Your task to perform on an android device: Search for "usb-b" on amazon.com, select the first entry, and add it to the cart. Image 0: 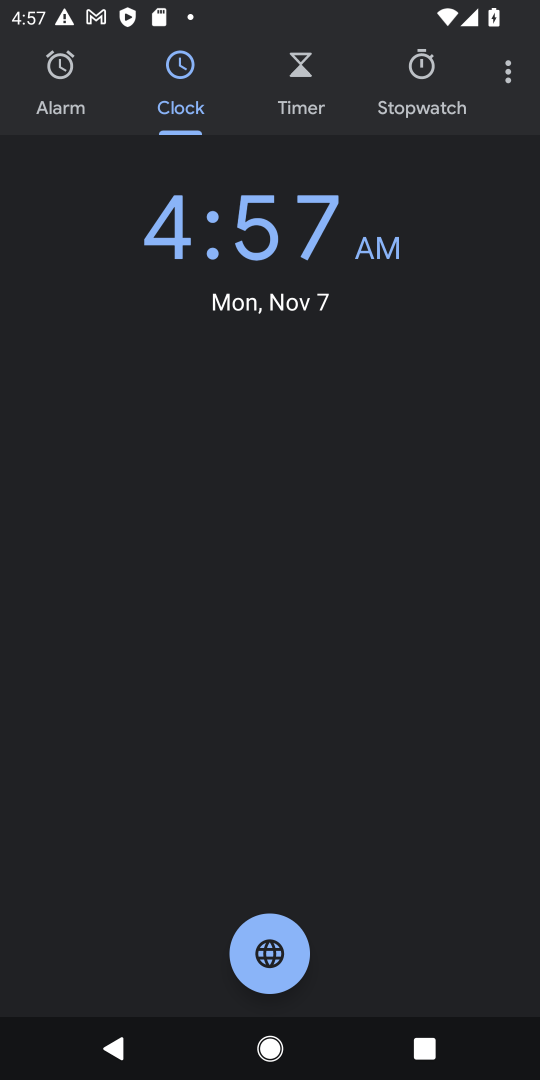
Step 0: press home button
Your task to perform on an android device: Search for "usb-b" on amazon.com, select the first entry, and add it to the cart. Image 1: 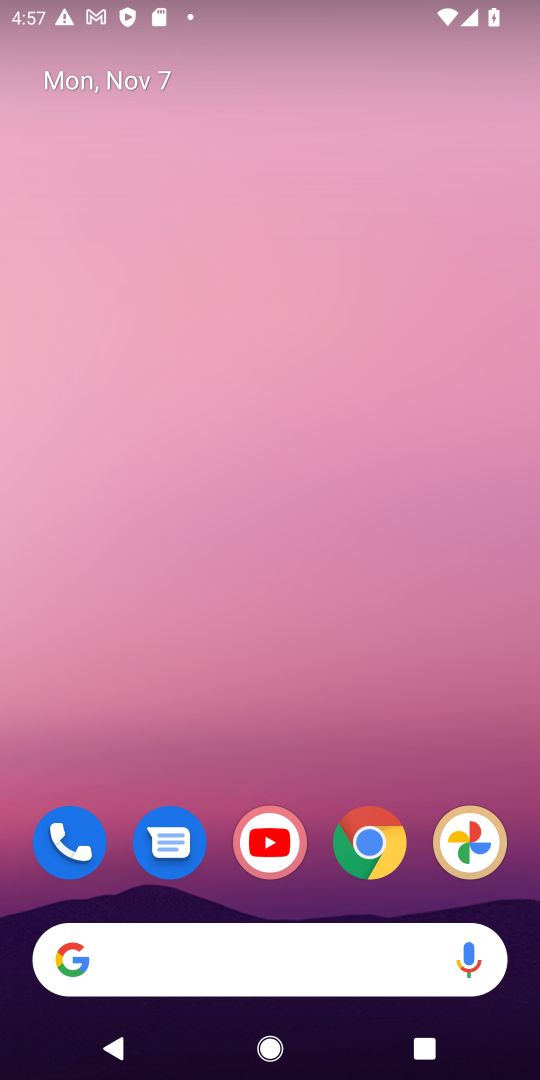
Step 1: drag from (230, 660) to (348, 0)
Your task to perform on an android device: Search for "usb-b" on amazon.com, select the first entry, and add it to the cart. Image 2: 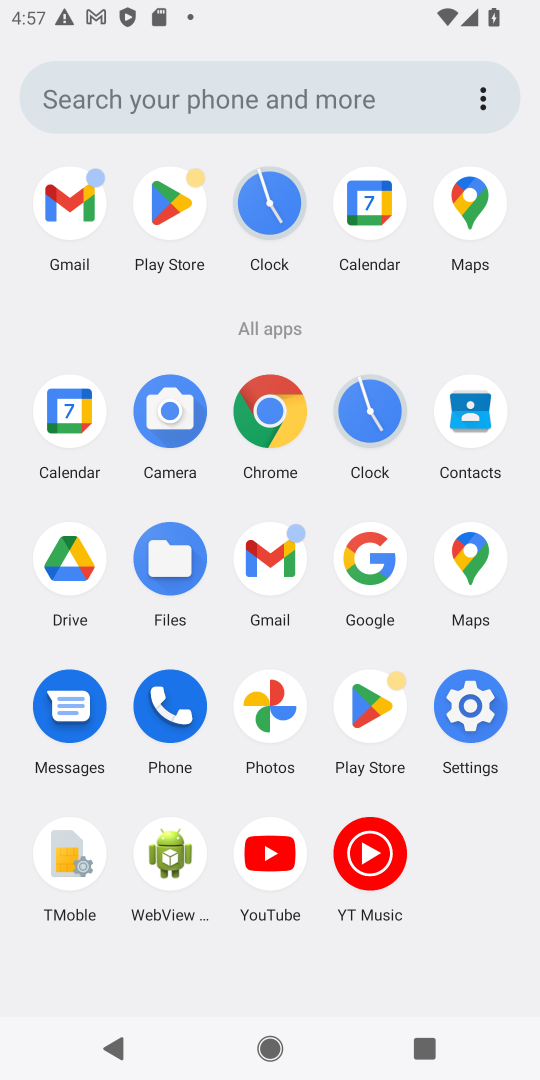
Step 2: drag from (301, 517) to (429, 394)
Your task to perform on an android device: Search for "usb-b" on amazon.com, select the first entry, and add it to the cart. Image 3: 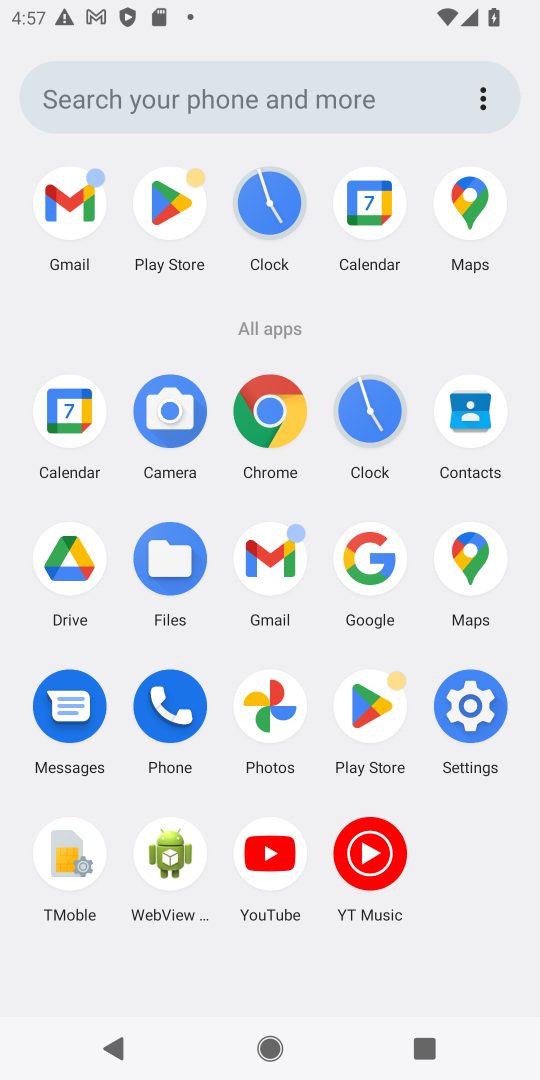
Step 3: click (252, 443)
Your task to perform on an android device: Search for "usb-b" on amazon.com, select the first entry, and add it to the cart. Image 4: 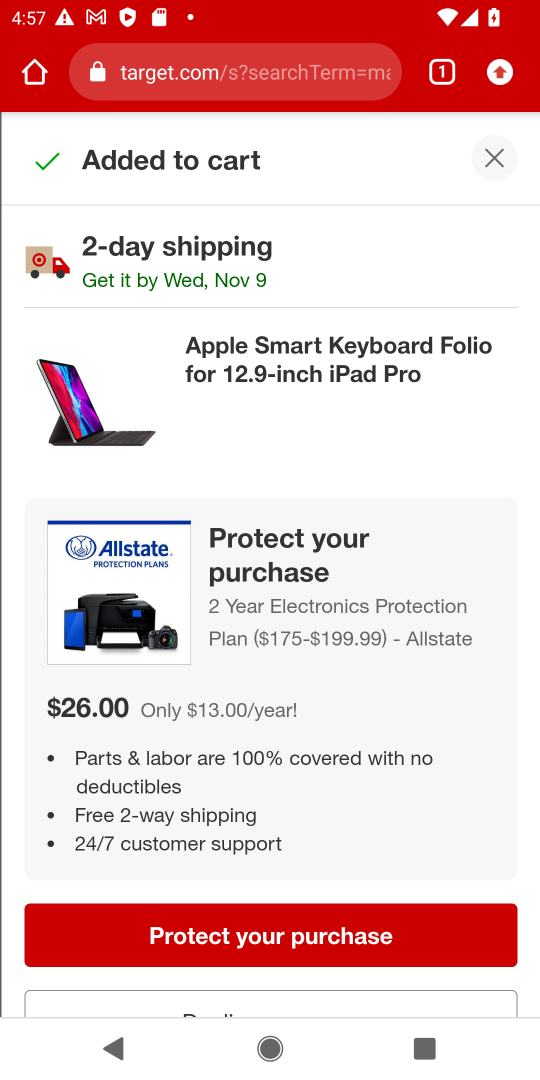
Step 4: click (322, 68)
Your task to perform on an android device: Search for "usb-b" on amazon.com, select the first entry, and add it to the cart. Image 5: 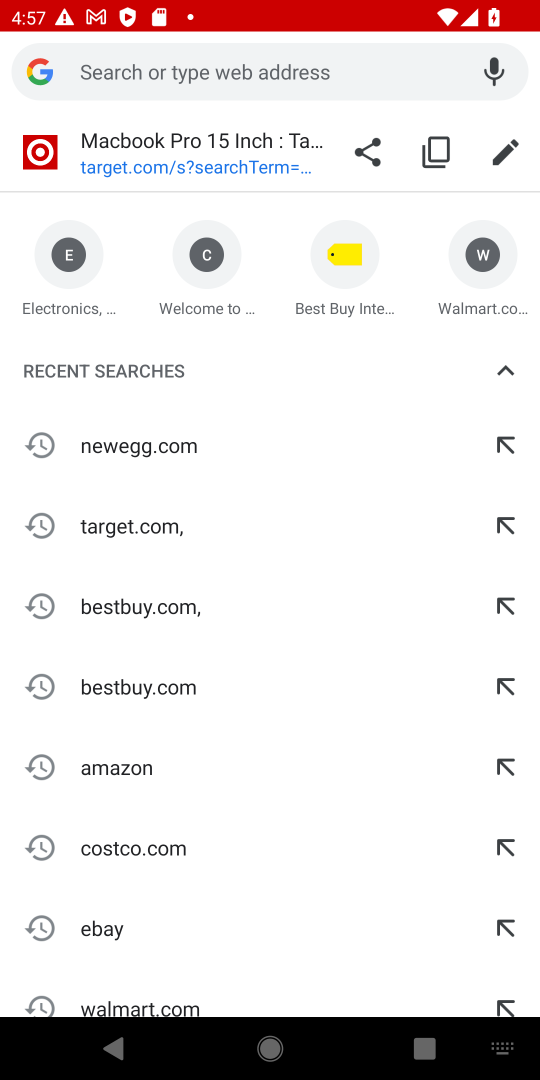
Step 5: type "amazon.com"
Your task to perform on an android device: Search for "usb-b" on amazon.com, select the first entry, and add it to the cart. Image 6: 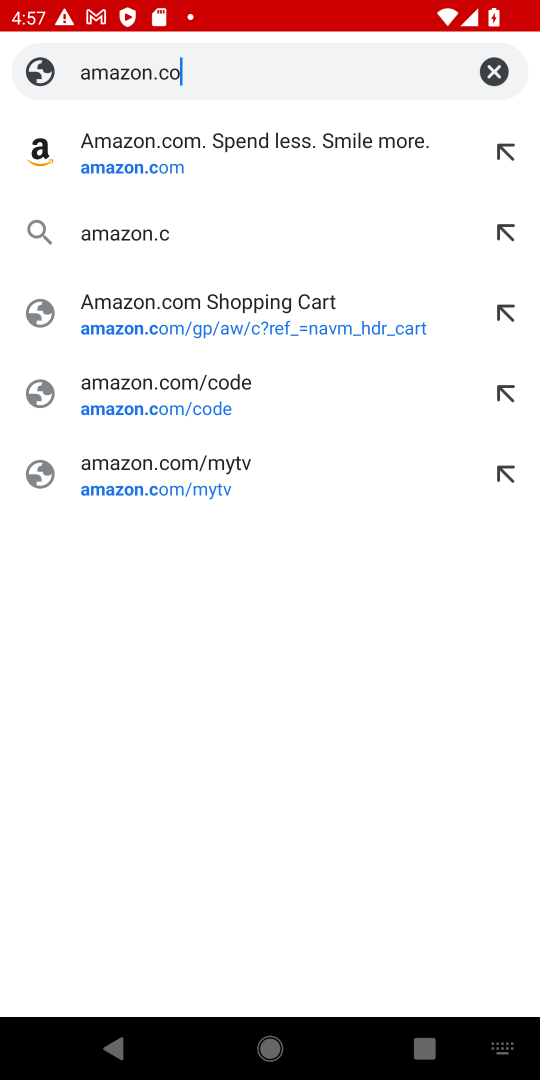
Step 6: press enter
Your task to perform on an android device: Search for "usb-b" on amazon.com, select the first entry, and add it to the cart. Image 7: 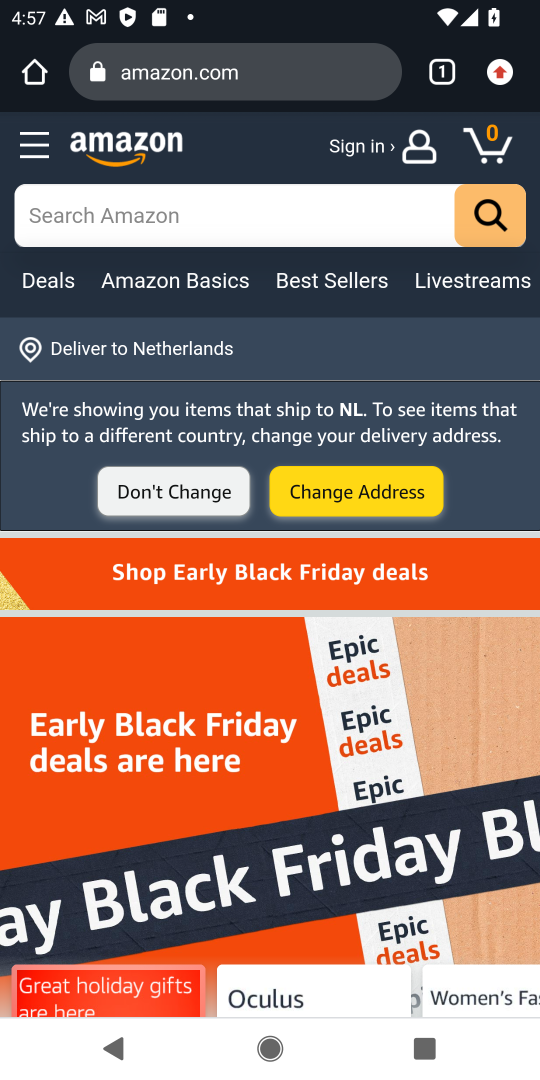
Step 7: click (249, 218)
Your task to perform on an android device: Search for "usb-b" on amazon.com, select the first entry, and add it to the cart. Image 8: 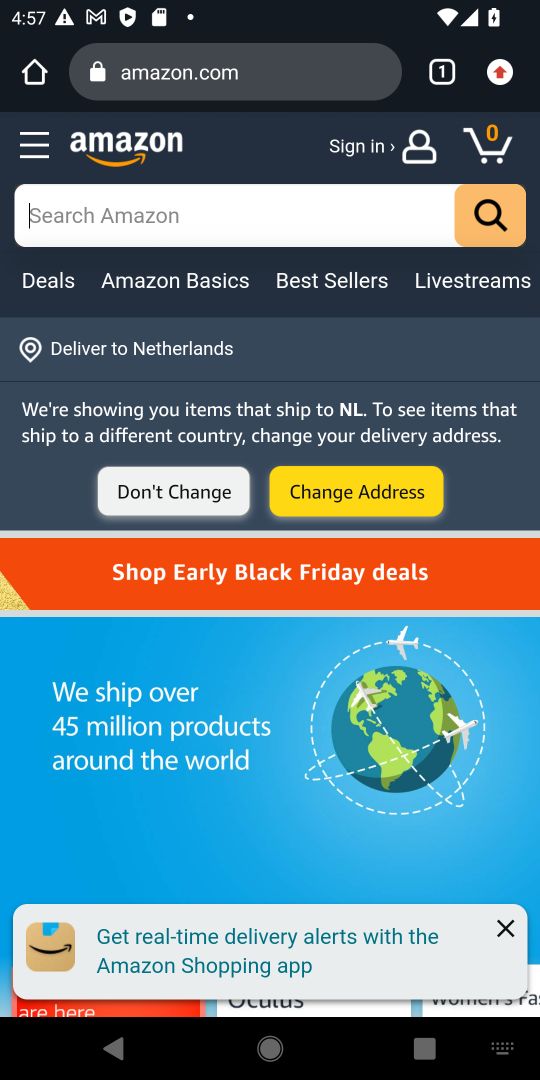
Step 8: press enter
Your task to perform on an android device: Search for "usb-b" on amazon.com, select the first entry, and add it to the cart. Image 9: 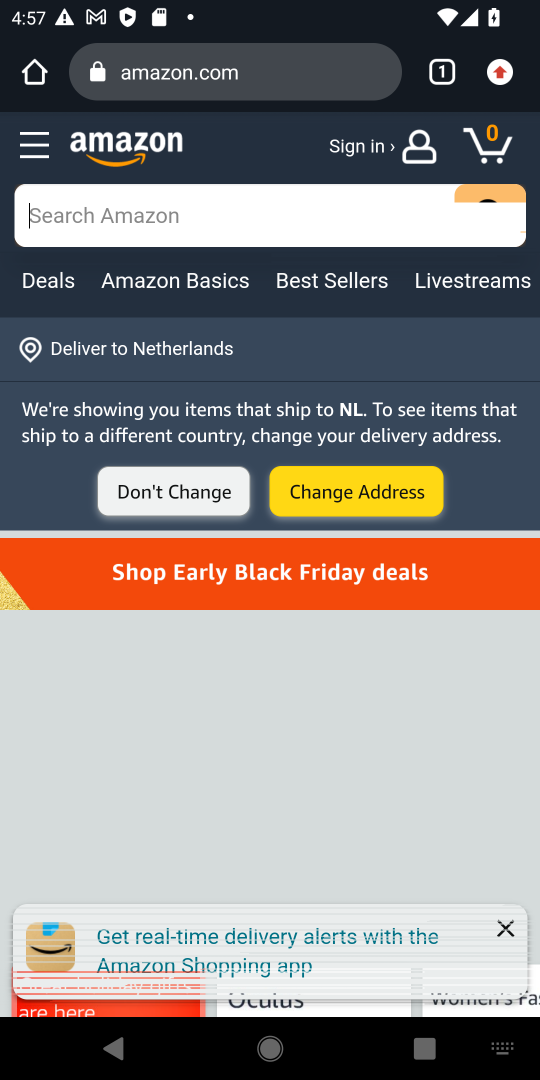
Step 9: type "usb-b"
Your task to perform on an android device: Search for "usb-b" on amazon.com, select the first entry, and add it to the cart. Image 10: 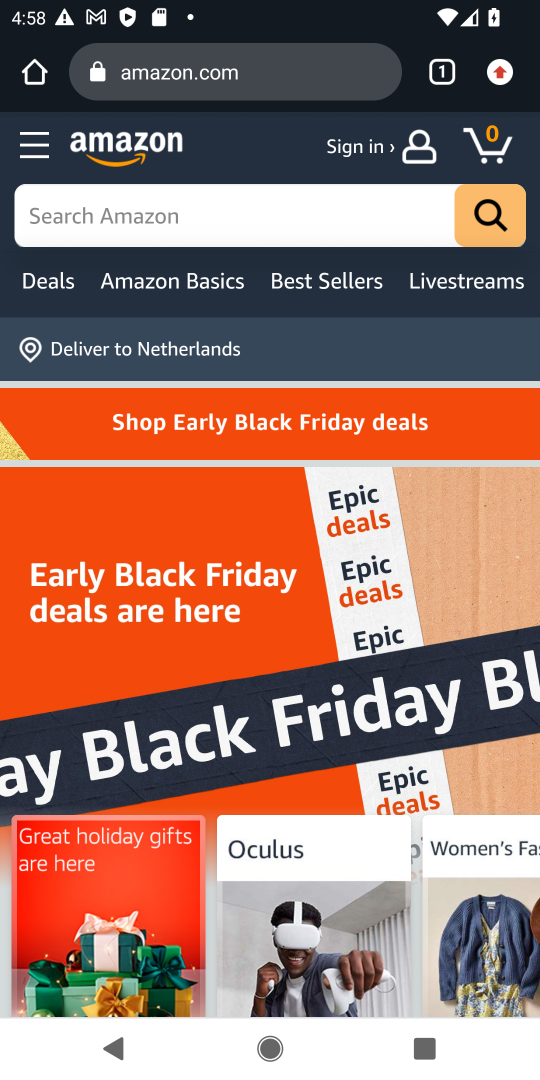
Step 10: press home button
Your task to perform on an android device: Search for "usb-b" on amazon.com, select the first entry, and add it to the cart. Image 11: 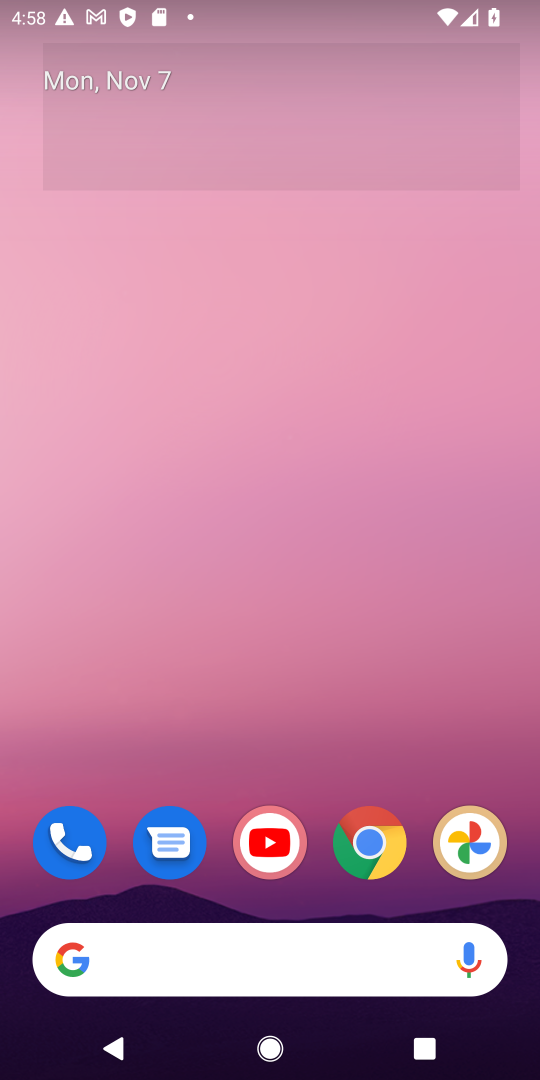
Step 11: drag from (57, 868) to (235, 232)
Your task to perform on an android device: Search for "usb-b" on amazon.com, select the first entry, and add it to the cart. Image 12: 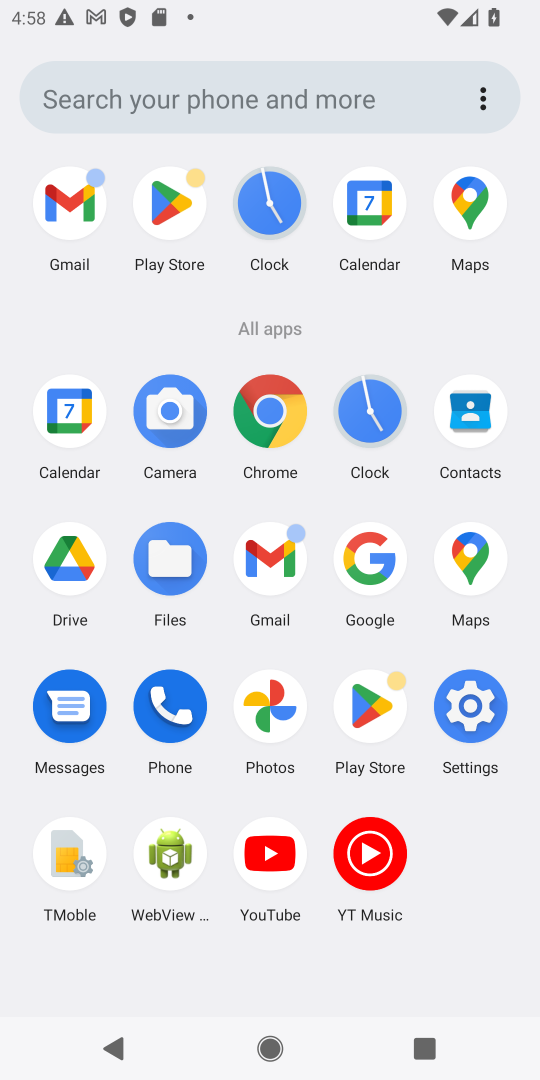
Step 12: click (272, 411)
Your task to perform on an android device: Search for "usb-b" on amazon.com, select the first entry, and add it to the cart. Image 13: 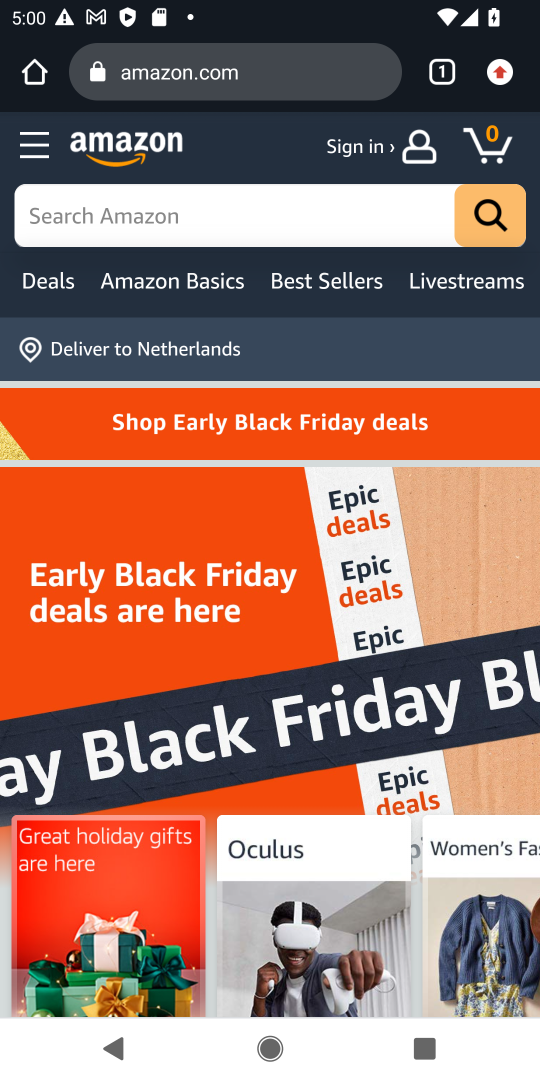
Step 13: click (128, 216)
Your task to perform on an android device: Search for "usb-b" on amazon.com, select the first entry, and add it to the cart. Image 14: 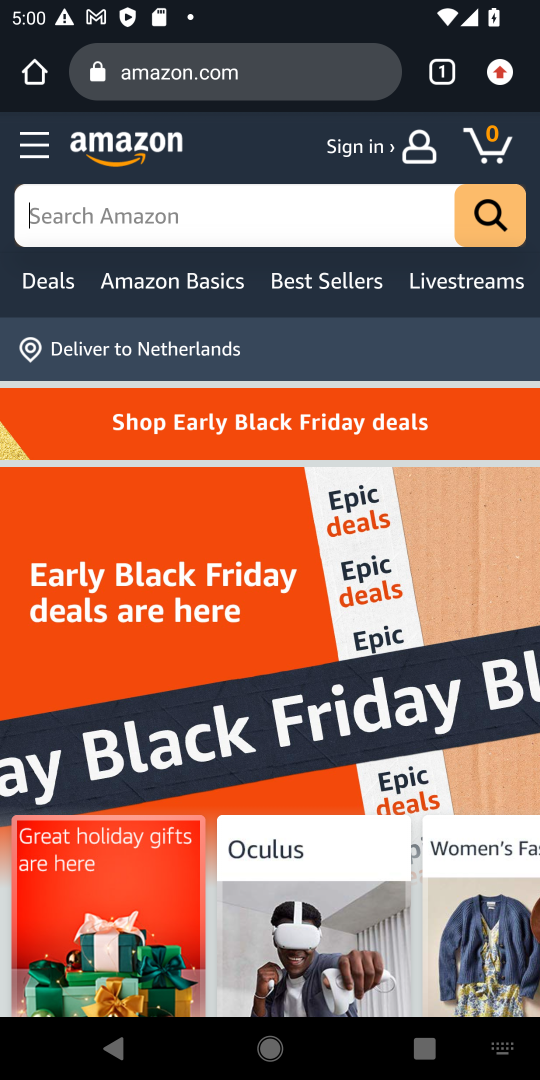
Step 14: type "usb-b"
Your task to perform on an android device: Search for "usb-b" on amazon.com, select the first entry, and add it to the cart. Image 15: 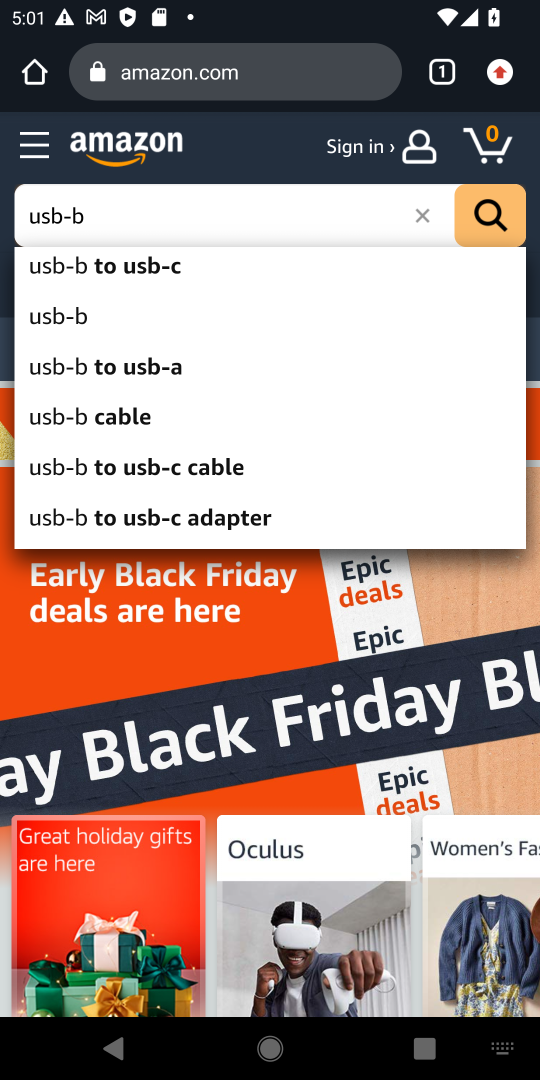
Step 15: press enter
Your task to perform on an android device: Search for "usb-b" on amazon.com, select the first entry, and add it to the cart. Image 16: 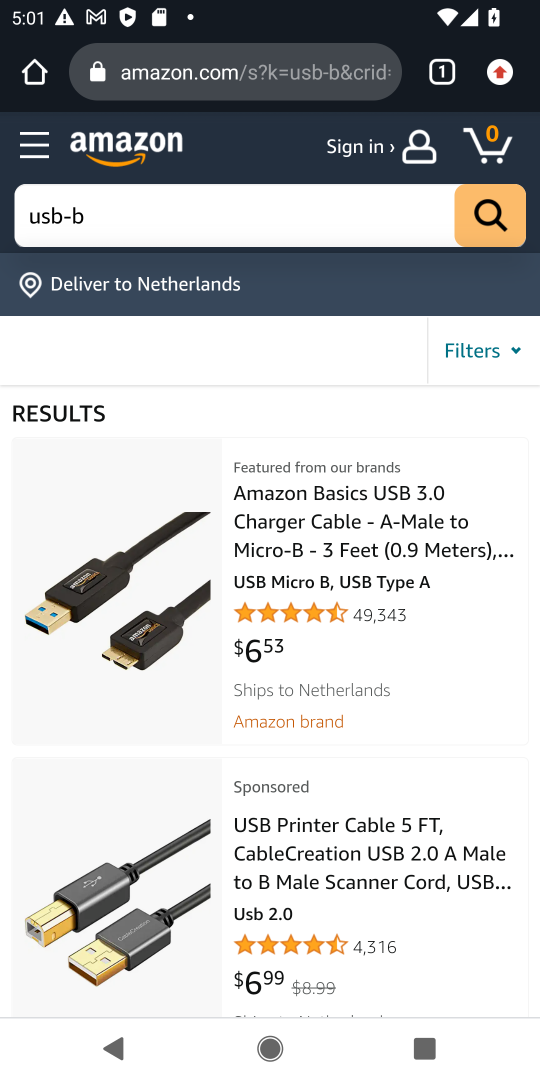
Step 16: click (126, 535)
Your task to perform on an android device: Search for "usb-b" on amazon.com, select the first entry, and add it to the cart. Image 17: 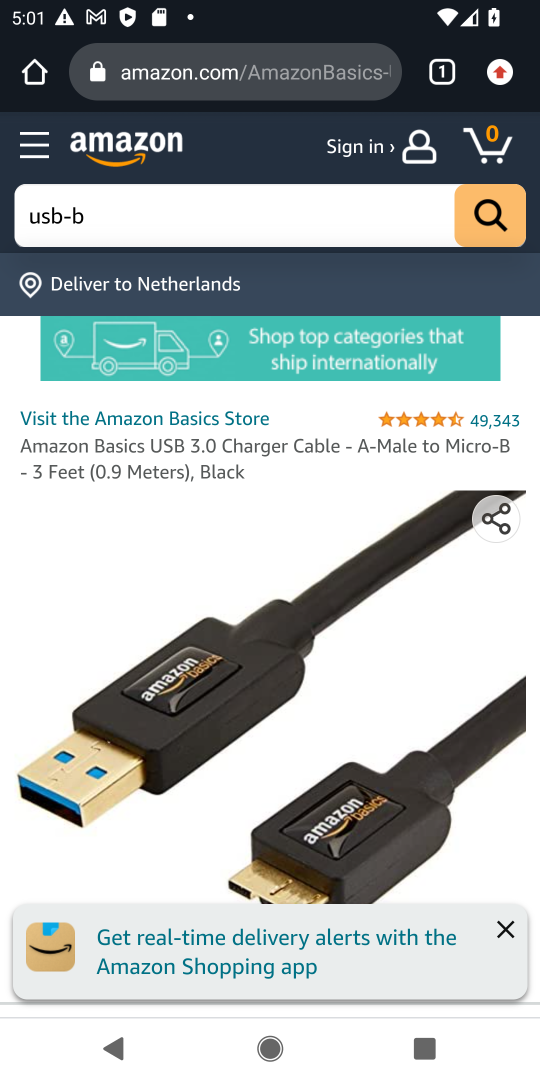
Step 17: drag from (253, 736) to (318, 413)
Your task to perform on an android device: Search for "usb-b" on amazon.com, select the first entry, and add it to the cart. Image 18: 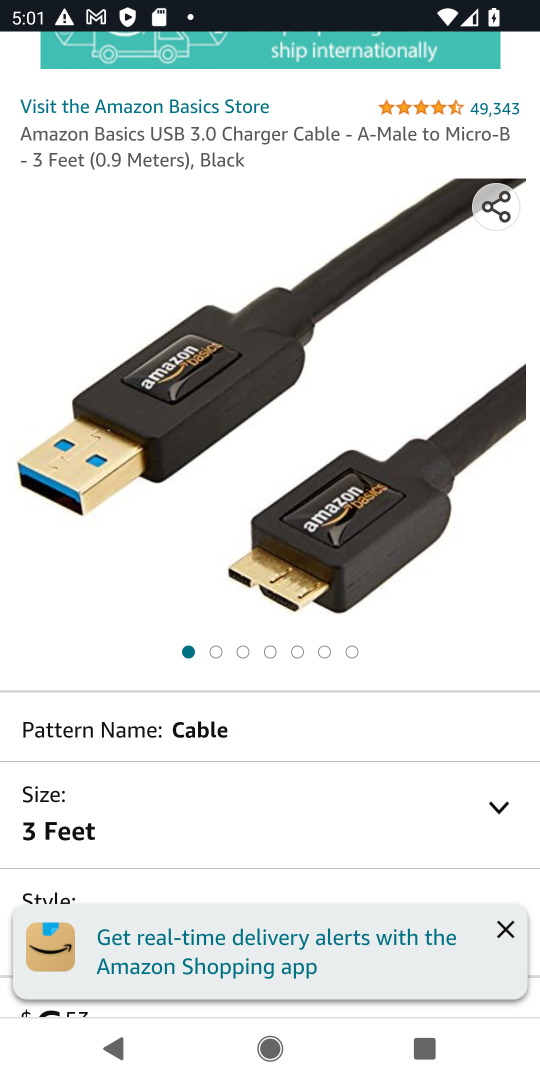
Step 18: drag from (255, 769) to (404, 320)
Your task to perform on an android device: Search for "usb-b" on amazon.com, select the first entry, and add it to the cart. Image 19: 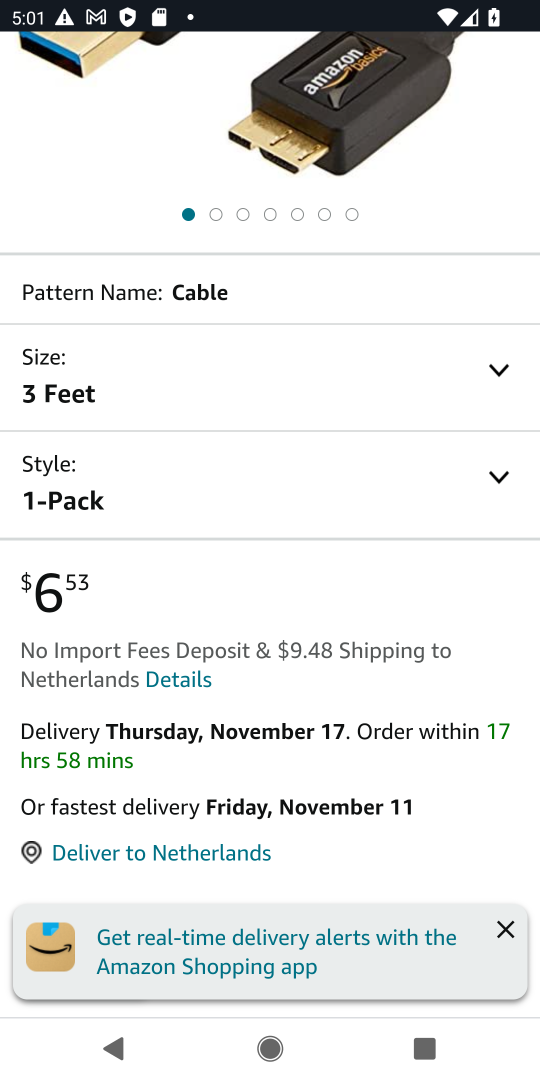
Step 19: drag from (273, 810) to (402, 332)
Your task to perform on an android device: Search for "usb-b" on amazon.com, select the first entry, and add it to the cart. Image 20: 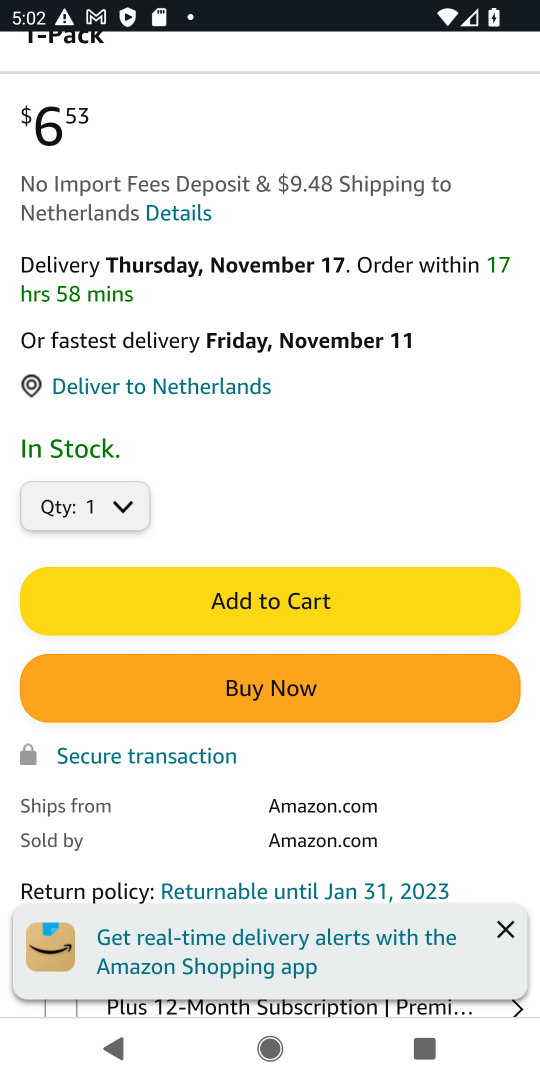
Step 20: click (292, 610)
Your task to perform on an android device: Search for "usb-b" on amazon.com, select the first entry, and add it to the cart. Image 21: 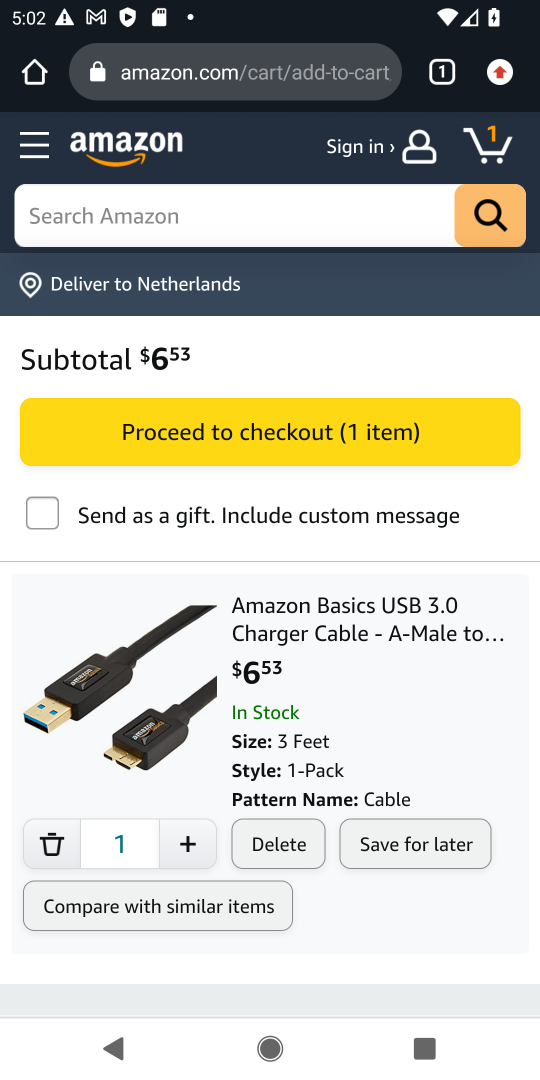
Step 21: drag from (315, 919) to (405, 552)
Your task to perform on an android device: Search for "usb-b" on amazon.com, select the first entry, and add it to the cart. Image 22: 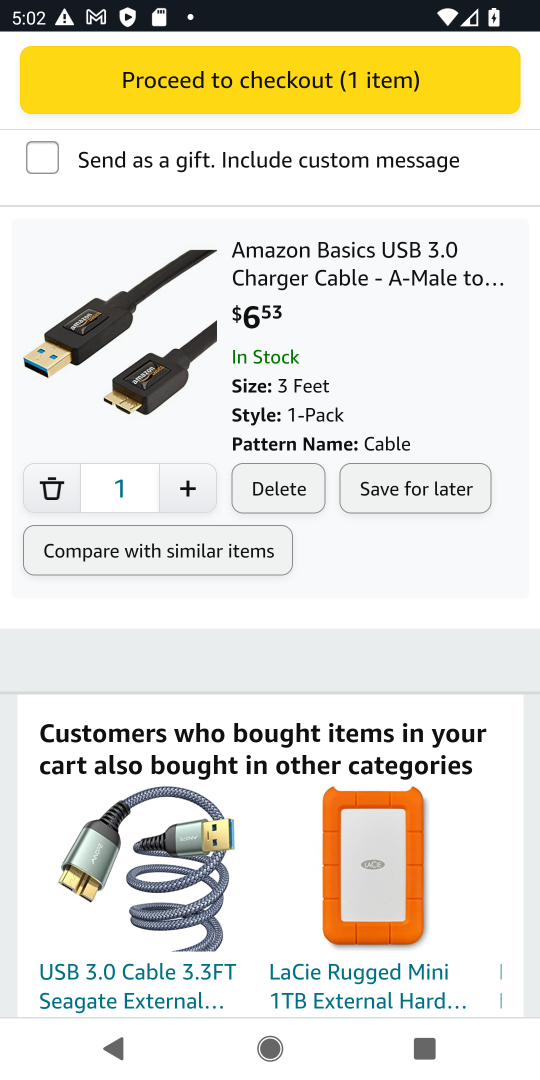
Step 22: click (317, 293)
Your task to perform on an android device: Search for "usb-b" on amazon.com, select the first entry, and add it to the cart. Image 23: 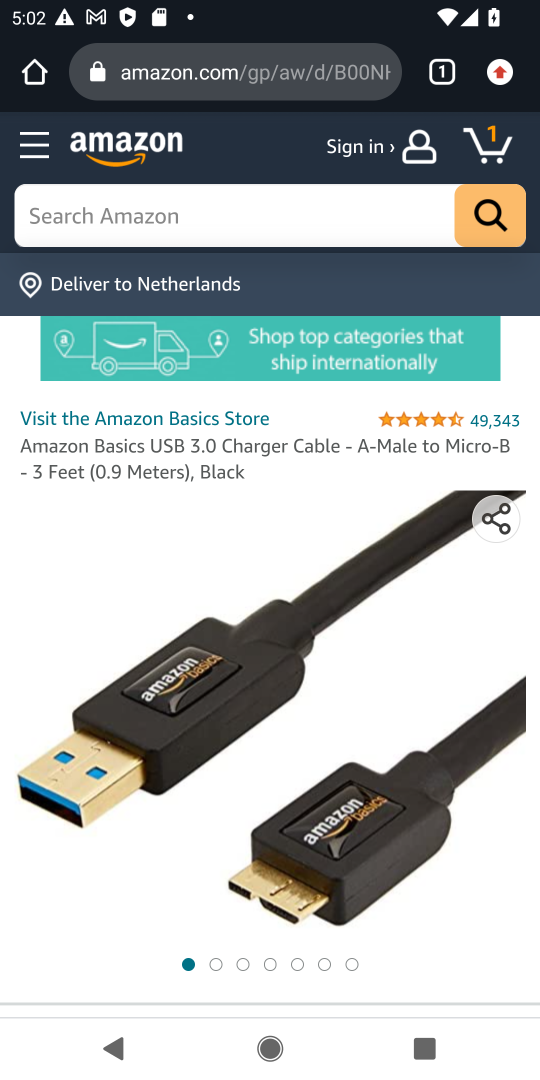
Step 23: drag from (121, 834) to (148, 443)
Your task to perform on an android device: Search for "usb-b" on amazon.com, select the first entry, and add it to the cart. Image 24: 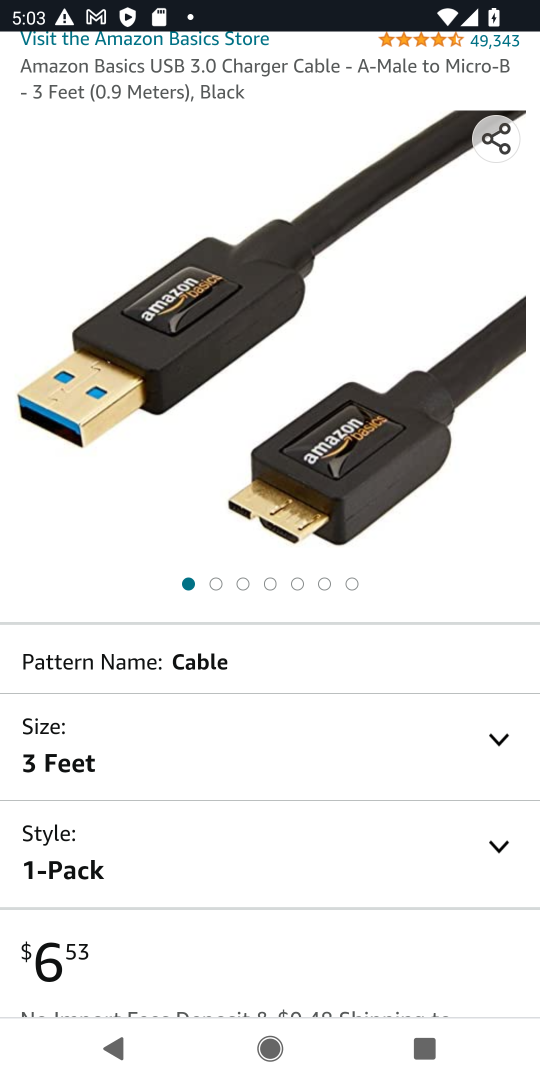
Step 24: drag from (187, 781) to (307, 369)
Your task to perform on an android device: Search for "usb-b" on amazon.com, select the first entry, and add it to the cart. Image 25: 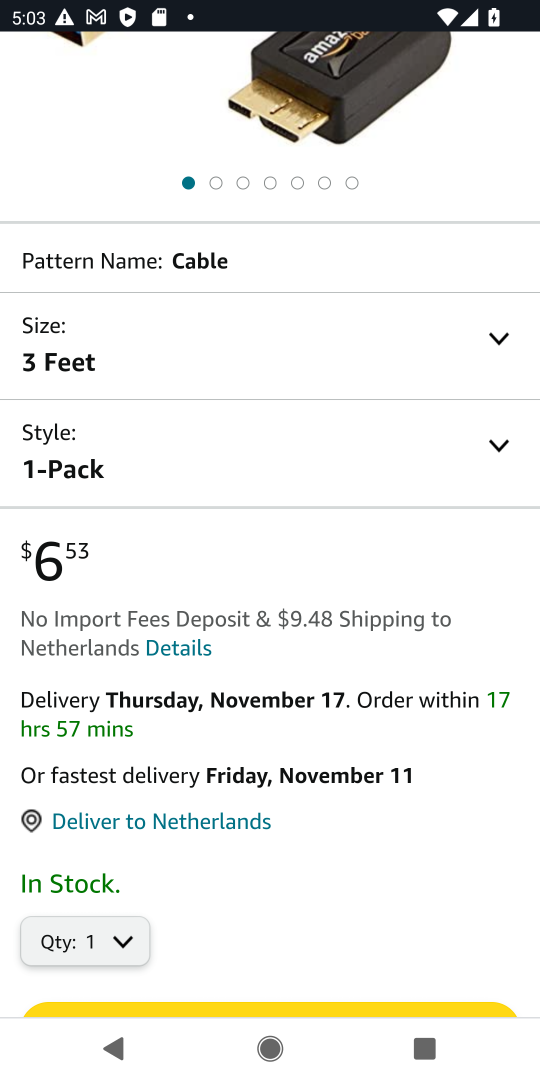
Step 25: drag from (313, 828) to (488, 275)
Your task to perform on an android device: Search for "usb-b" on amazon.com, select the first entry, and add it to the cart. Image 26: 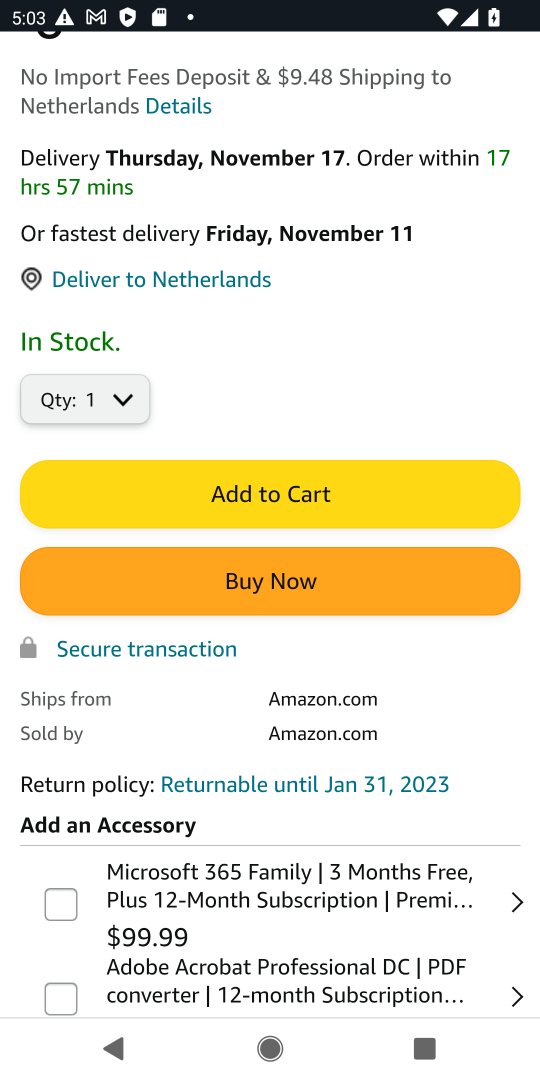
Step 26: click (309, 496)
Your task to perform on an android device: Search for "usb-b" on amazon.com, select the first entry, and add it to the cart. Image 27: 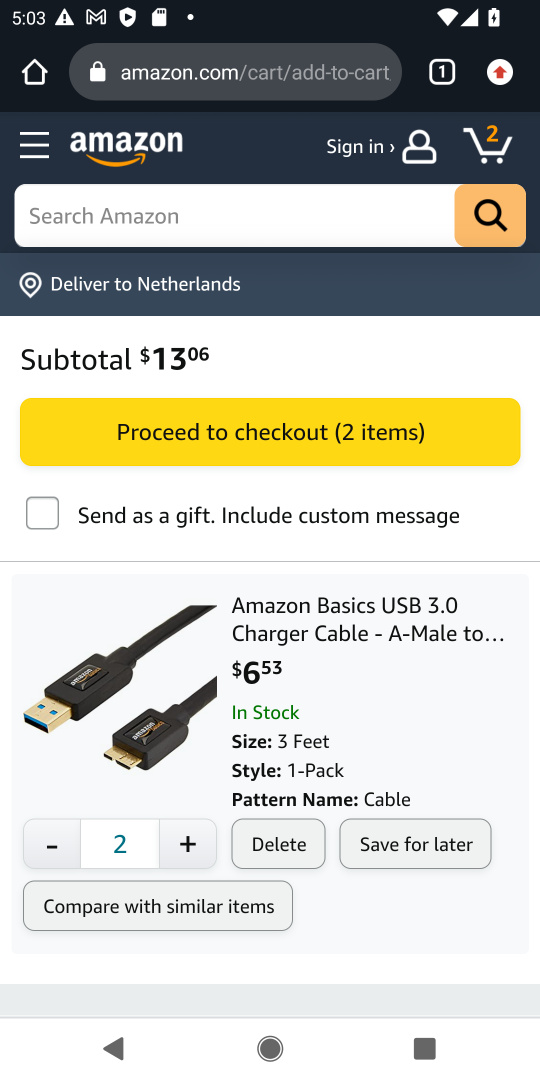
Step 27: click (310, 450)
Your task to perform on an android device: Search for "usb-b" on amazon.com, select the first entry, and add it to the cart. Image 28: 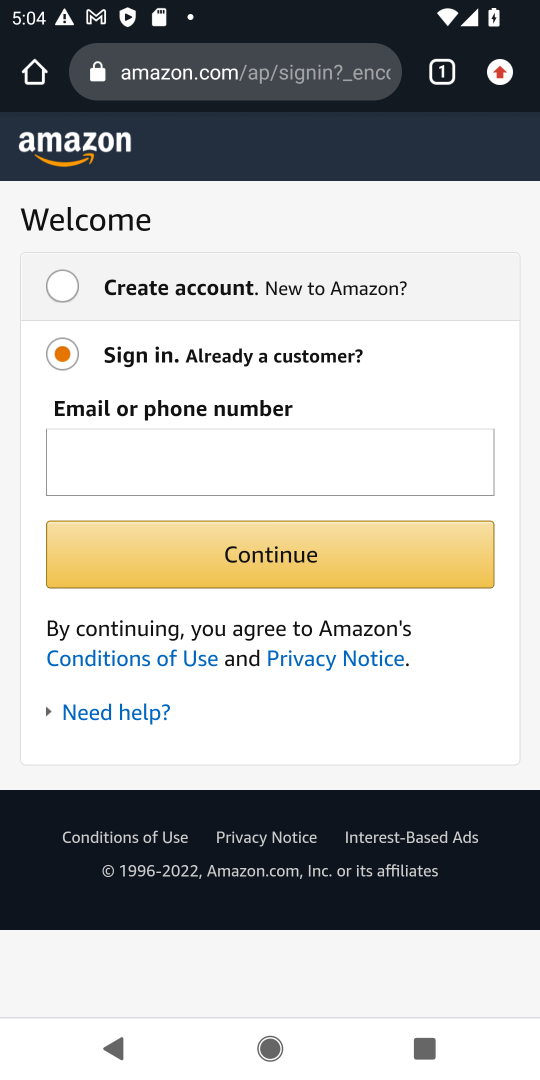
Step 28: task complete